Your task to perform on an android device: Is it going to rain this weekend? Image 0: 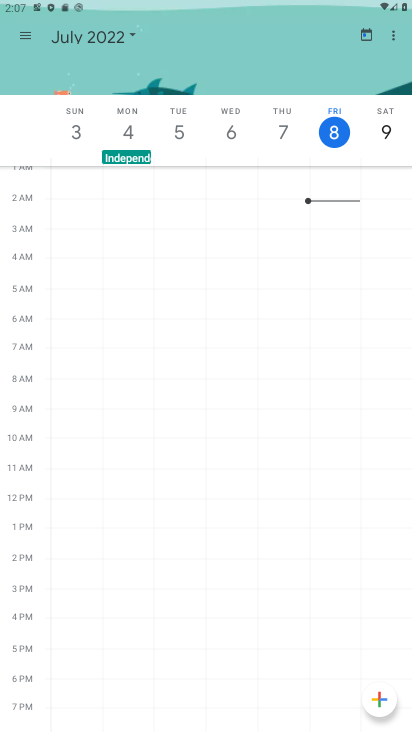
Step 0: press home button
Your task to perform on an android device: Is it going to rain this weekend? Image 1: 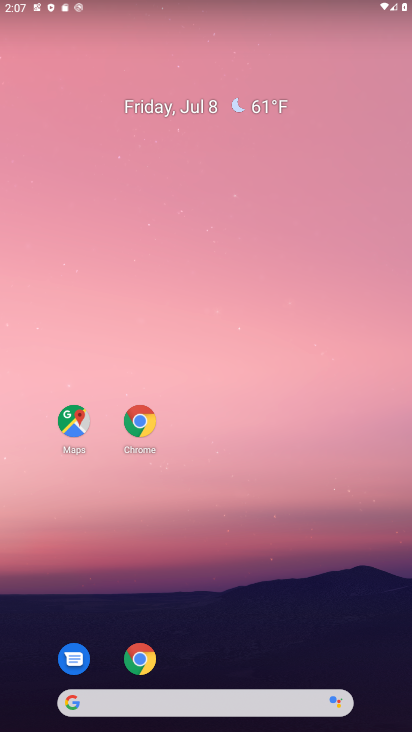
Step 1: click (214, 693)
Your task to perform on an android device: Is it going to rain this weekend? Image 2: 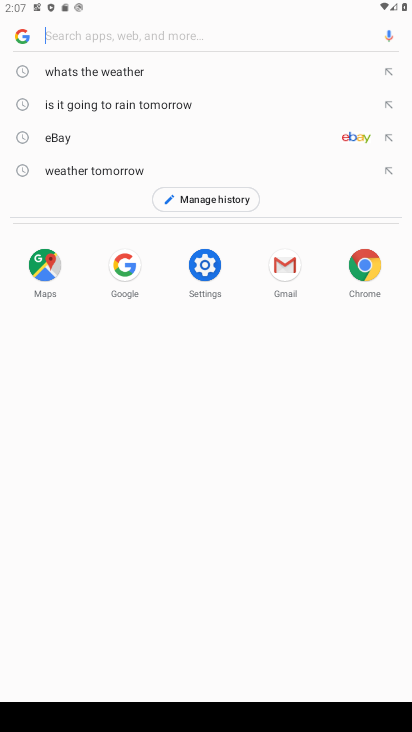
Step 2: click (80, 59)
Your task to perform on an android device: Is it going to rain this weekend? Image 3: 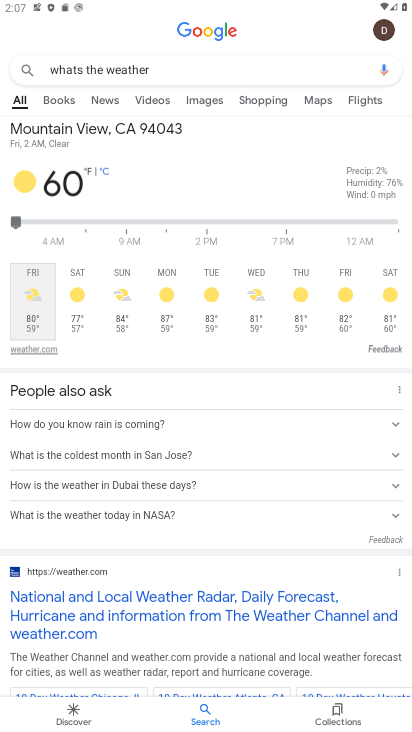
Step 3: task complete